Your task to perform on an android device: turn off picture-in-picture Image 0: 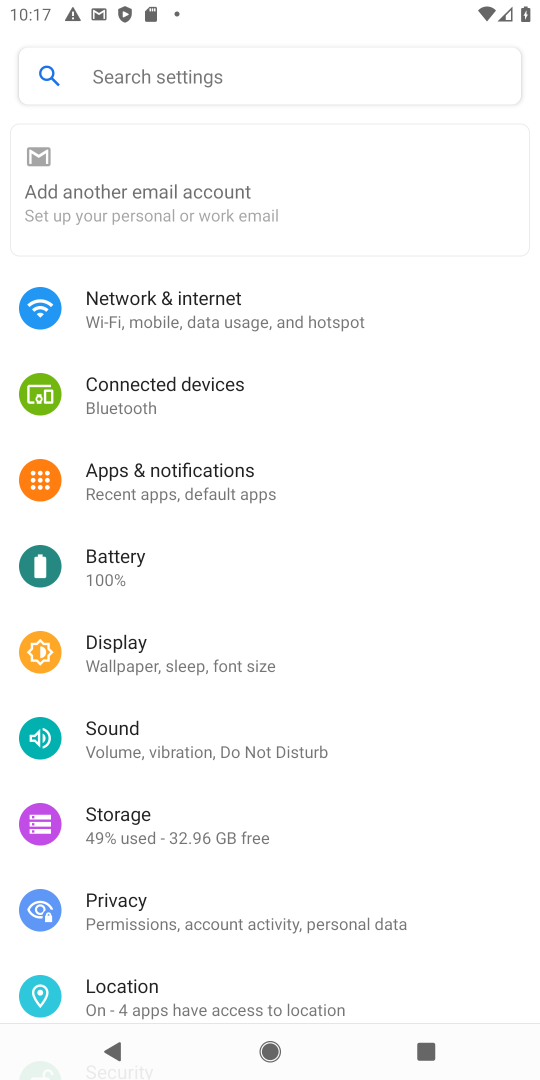
Step 0: drag from (300, 885) to (306, 257)
Your task to perform on an android device: turn off picture-in-picture Image 1: 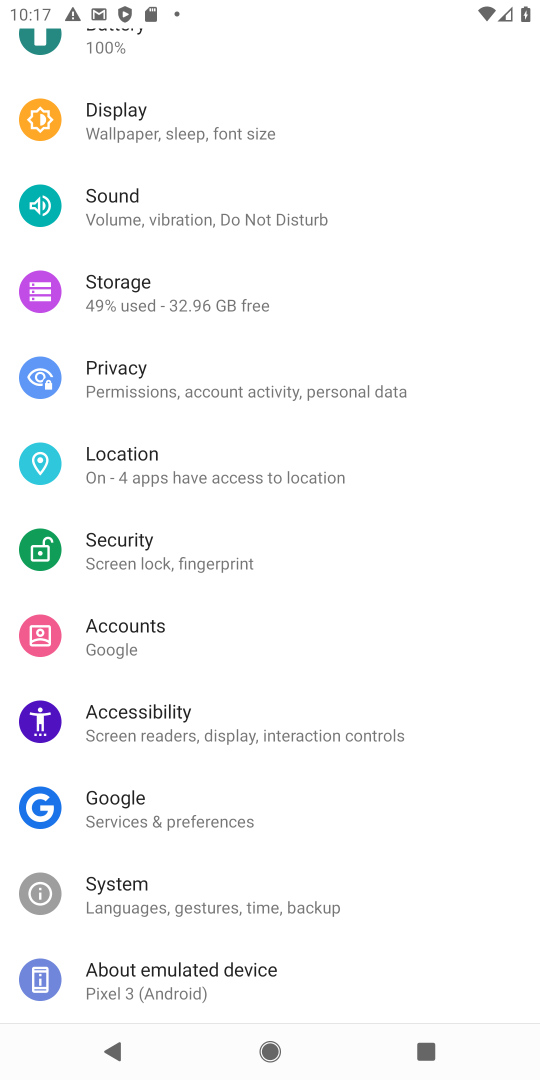
Step 1: drag from (212, 658) to (223, 1067)
Your task to perform on an android device: turn off picture-in-picture Image 2: 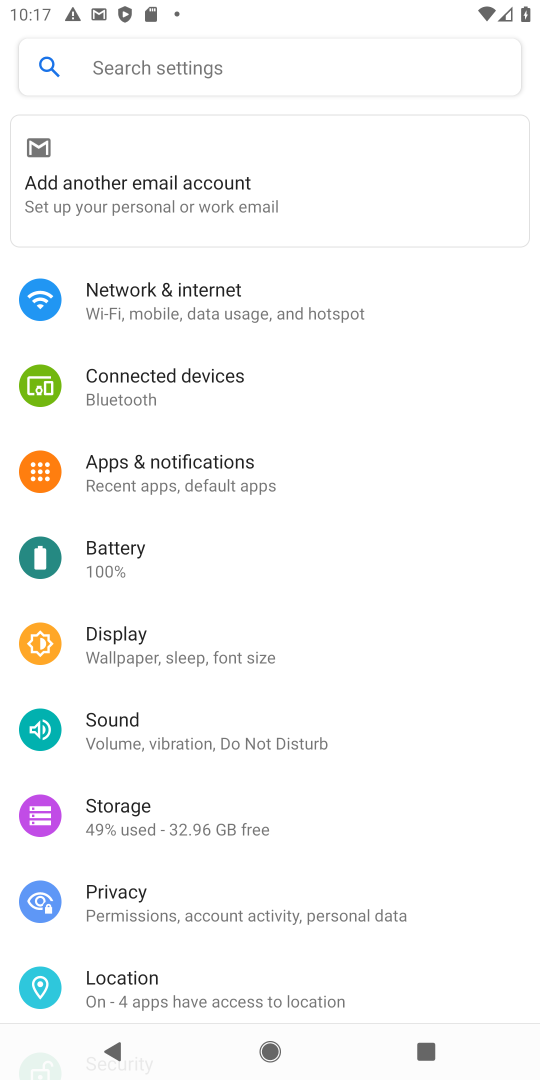
Step 2: click (181, 435)
Your task to perform on an android device: turn off picture-in-picture Image 3: 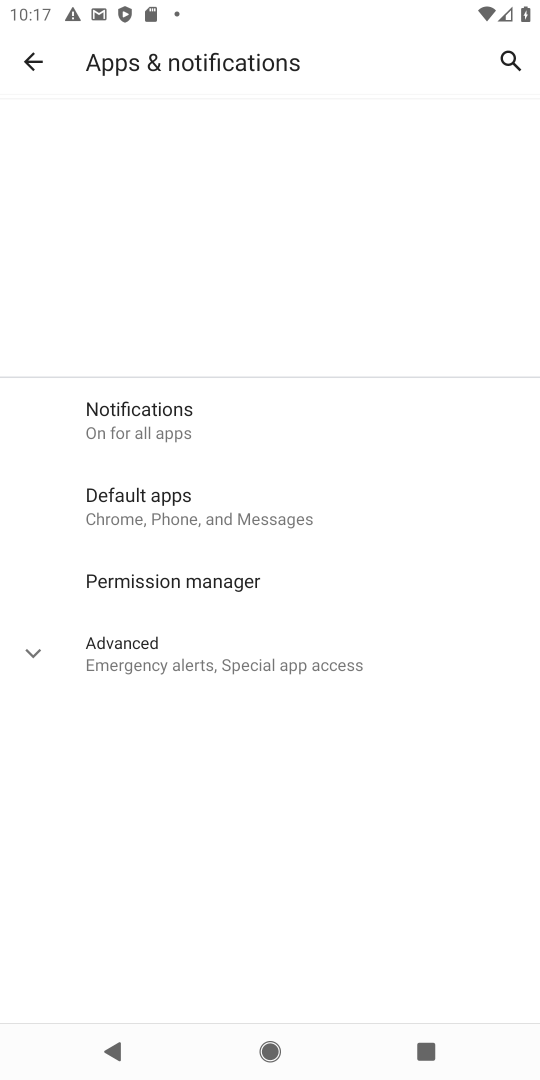
Step 3: click (139, 651)
Your task to perform on an android device: turn off picture-in-picture Image 4: 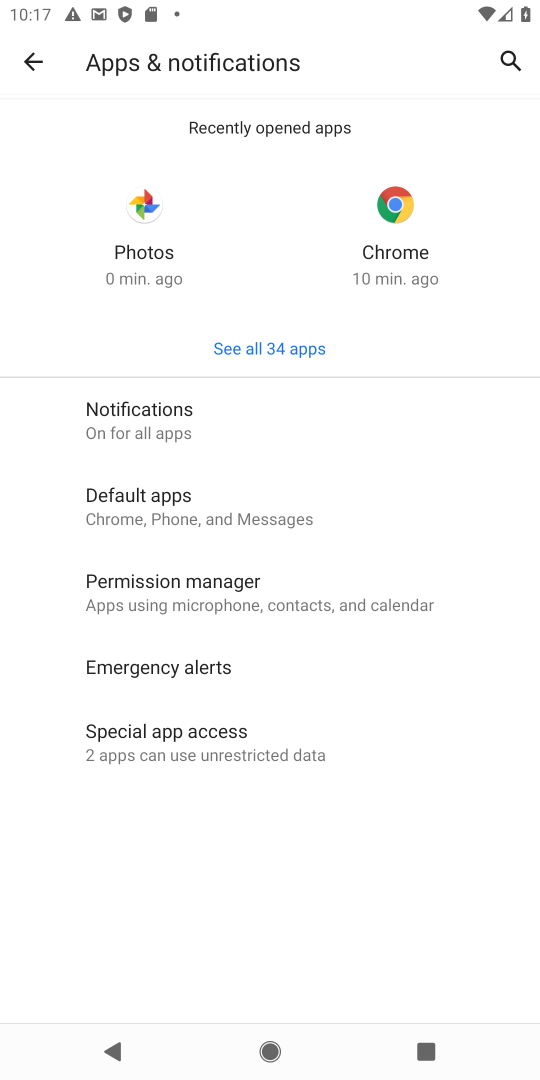
Step 4: click (140, 751)
Your task to perform on an android device: turn off picture-in-picture Image 5: 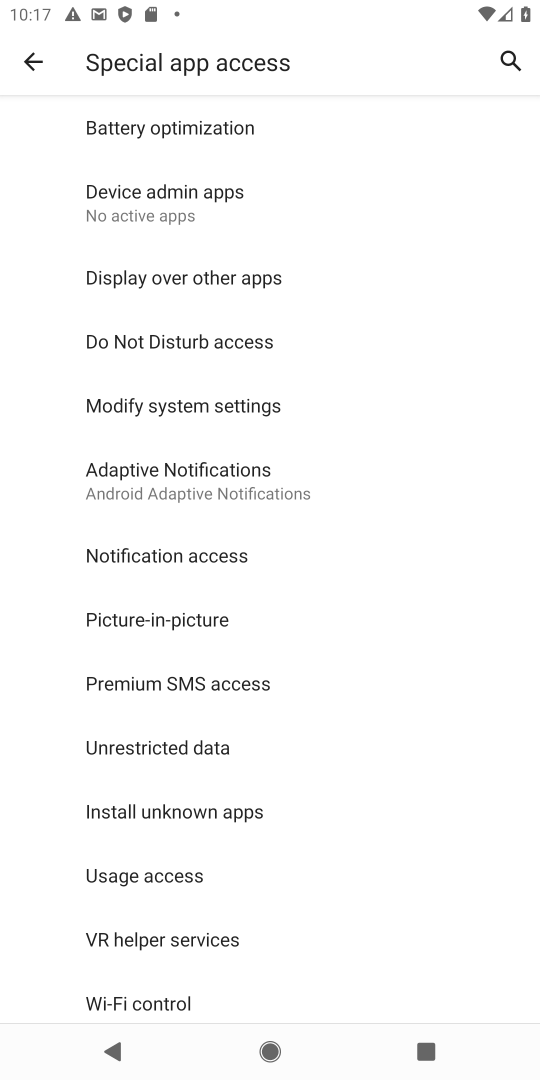
Step 5: click (146, 613)
Your task to perform on an android device: turn off picture-in-picture Image 6: 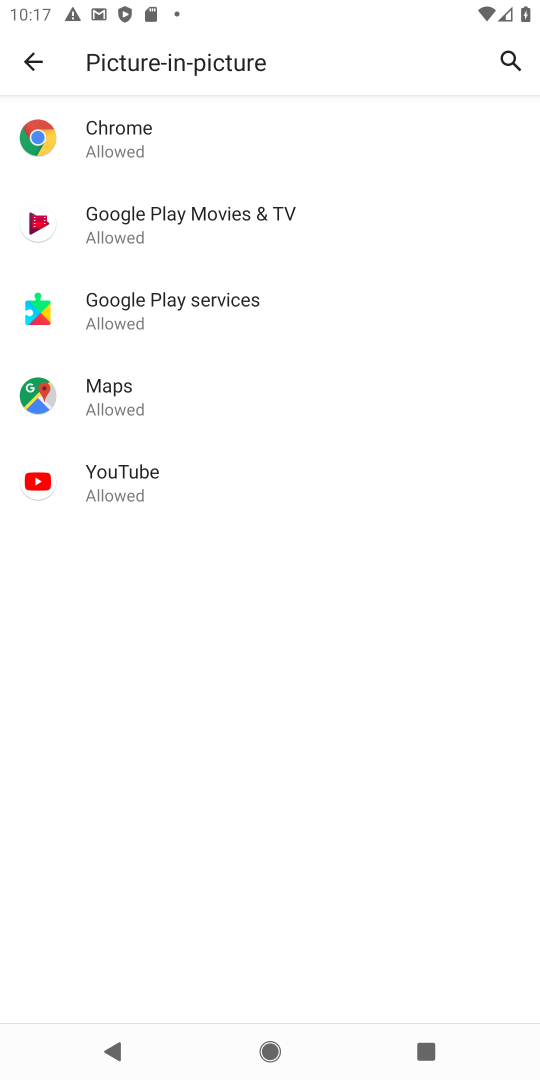
Step 6: task complete